Your task to perform on an android device: allow notifications from all sites in the chrome app Image 0: 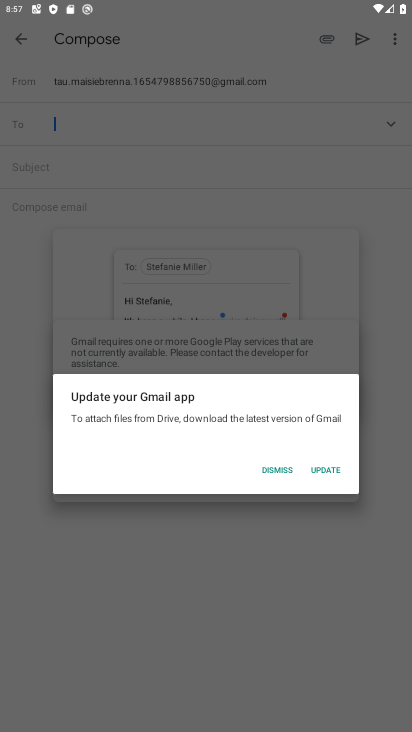
Step 0: press home button
Your task to perform on an android device: allow notifications from all sites in the chrome app Image 1: 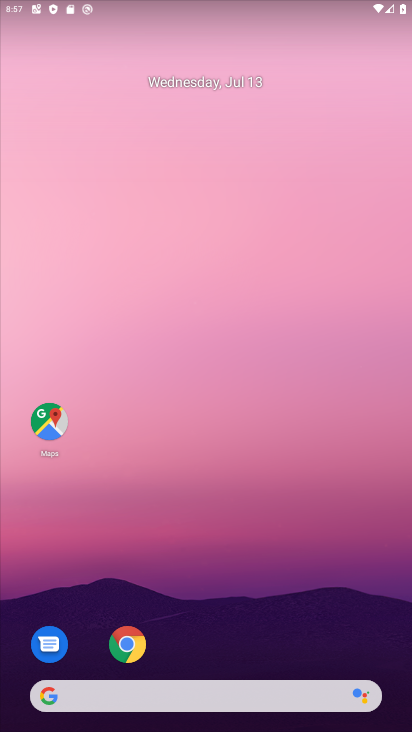
Step 1: drag from (217, 716) to (217, 29)
Your task to perform on an android device: allow notifications from all sites in the chrome app Image 2: 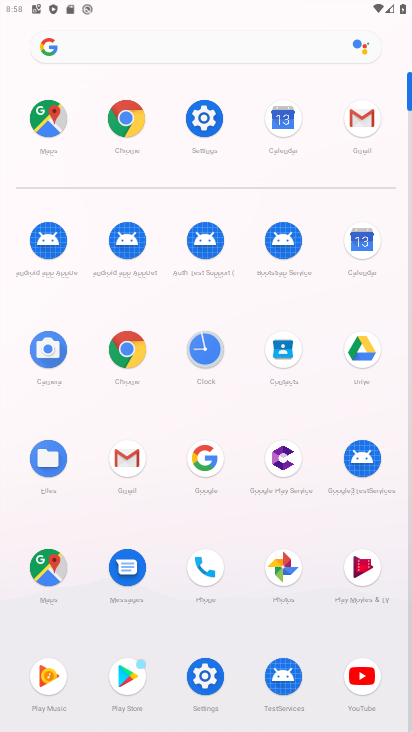
Step 2: click (132, 349)
Your task to perform on an android device: allow notifications from all sites in the chrome app Image 3: 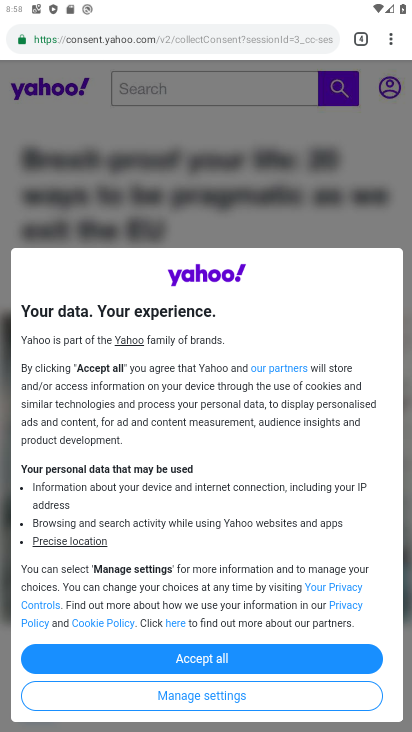
Step 3: click (392, 45)
Your task to perform on an android device: allow notifications from all sites in the chrome app Image 4: 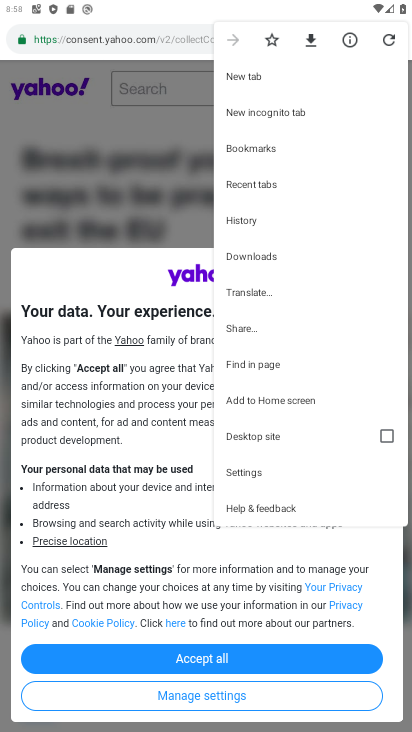
Step 4: click (242, 470)
Your task to perform on an android device: allow notifications from all sites in the chrome app Image 5: 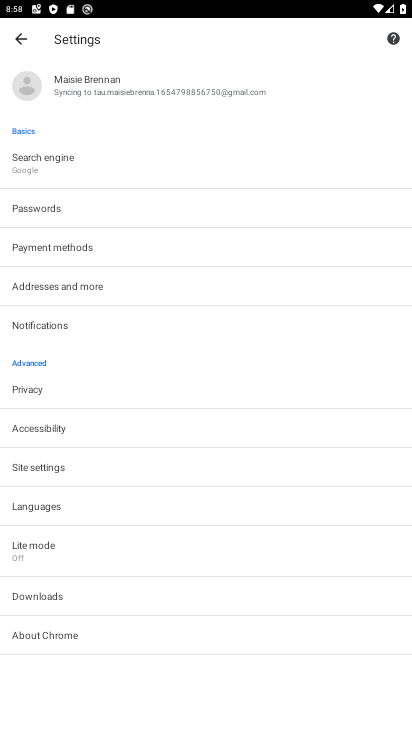
Step 5: click (46, 465)
Your task to perform on an android device: allow notifications from all sites in the chrome app Image 6: 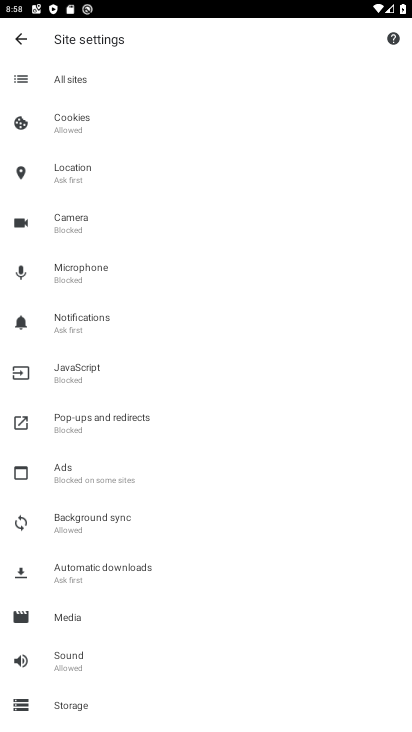
Step 6: click (82, 316)
Your task to perform on an android device: allow notifications from all sites in the chrome app Image 7: 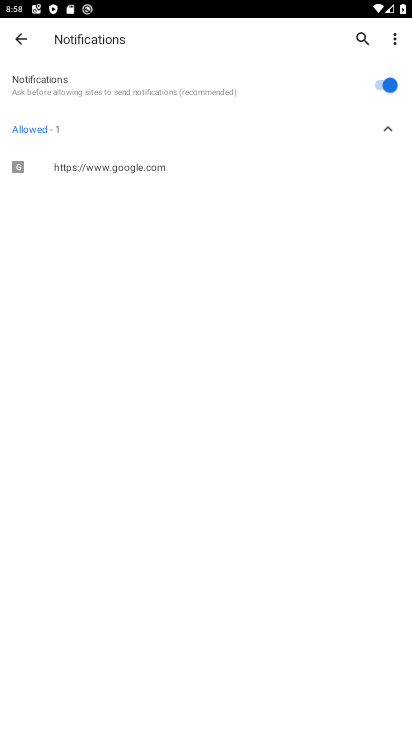
Step 7: task complete